Your task to perform on an android device: Show me recent news Image 0: 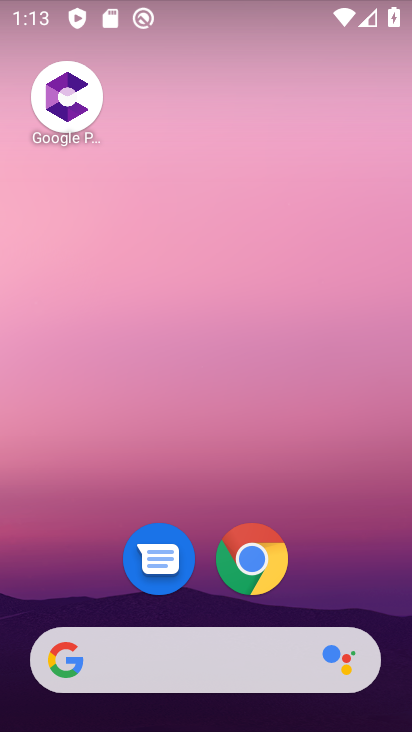
Step 0: click (241, 556)
Your task to perform on an android device: Show me recent news Image 1: 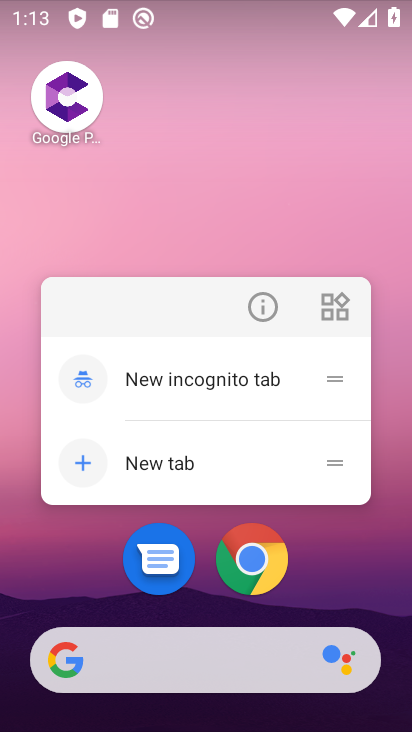
Step 1: click (247, 562)
Your task to perform on an android device: Show me recent news Image 2: 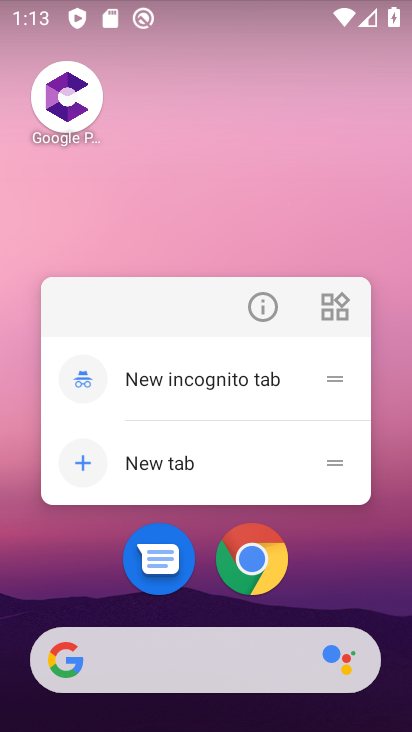
Step 2: click (246, 563)
Your task to perform on an android device: Show me recent news Image 3: 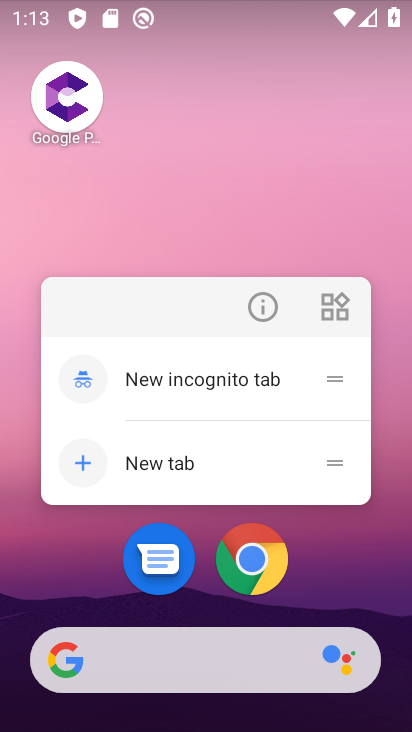
Step 3: click (248, 559)
Your task to perform on an android device: Show me recent news Image 4: 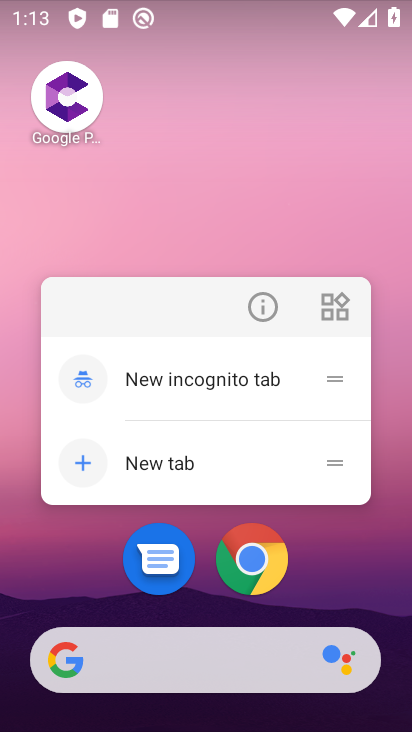
Step 4: drag from (320, 565) to (240, 44)
Your task to perform on an android device: Show me recent news Image 5: 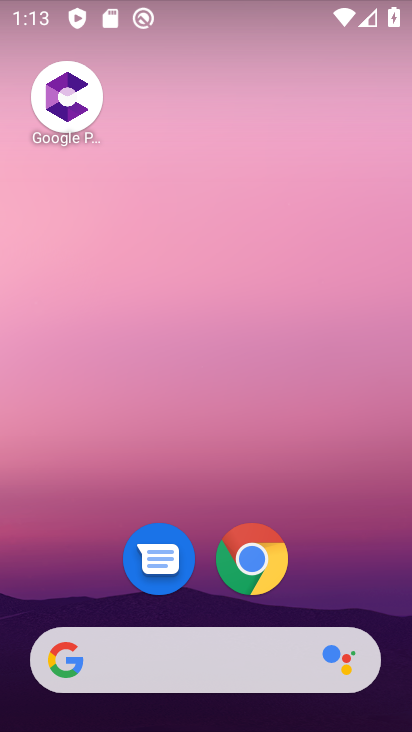
Step 5: drag from (356, 544) to (260, 157)
Your task to perform on an android device: Show me recent news Image 6: 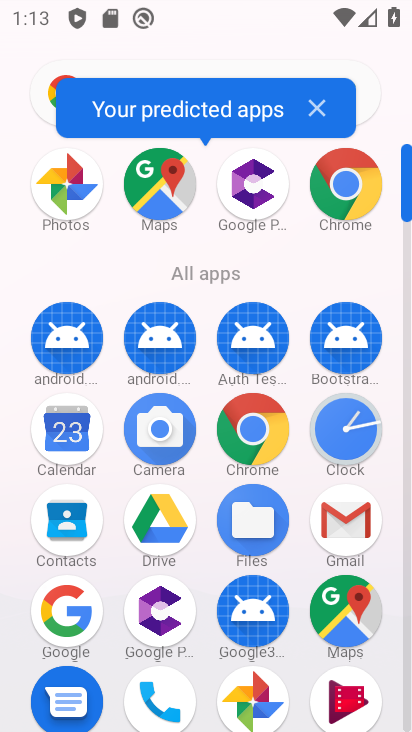
Step 6: click (254, 427)
Your task to perform on an android device: Show me recent news Image 7: 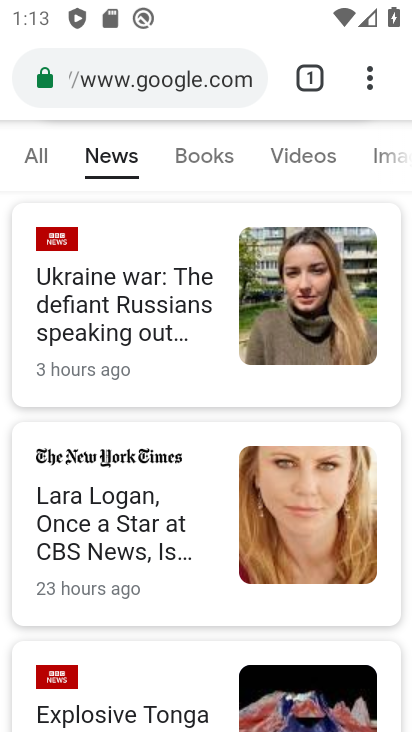
Step 7: task complete